Your task to perform on an android device: search for starred emails in the gmail app Image 0: 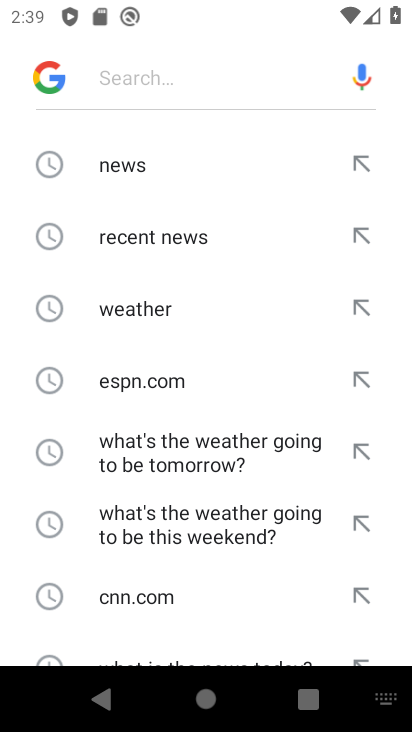
Step 0: press home button
Your task to perform on an android device: search for starred emails in the gmail app Image 1: 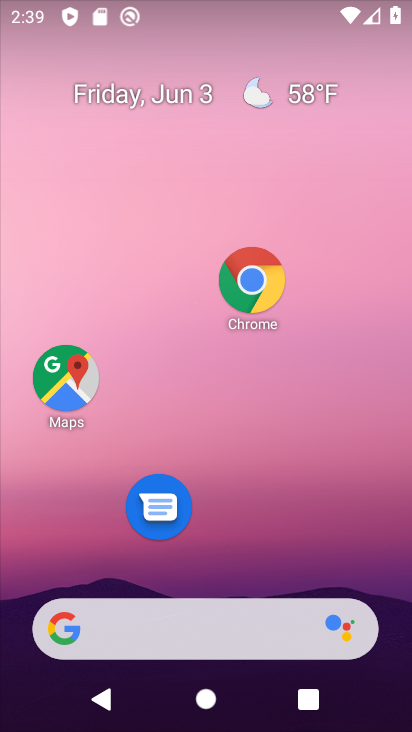
Step 1: drag from (280, 510) to (228, 76)
Your task to perform on an android device: search for starred emails in the gmail app Image 2: 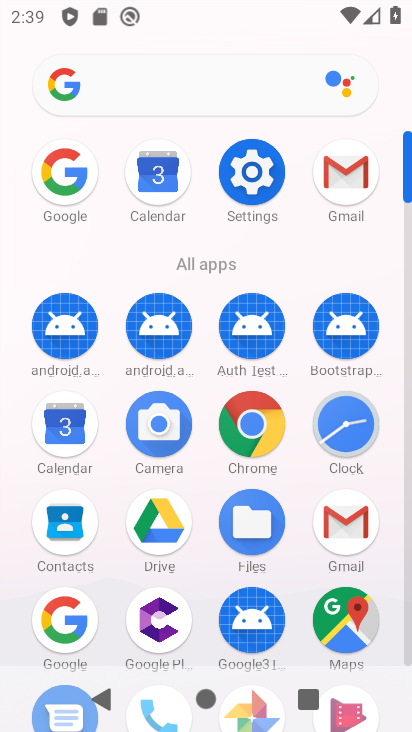
Step 2: click (347, 177)
Your task to perform on an android device: search for starred emails in the gmail app Image 3: 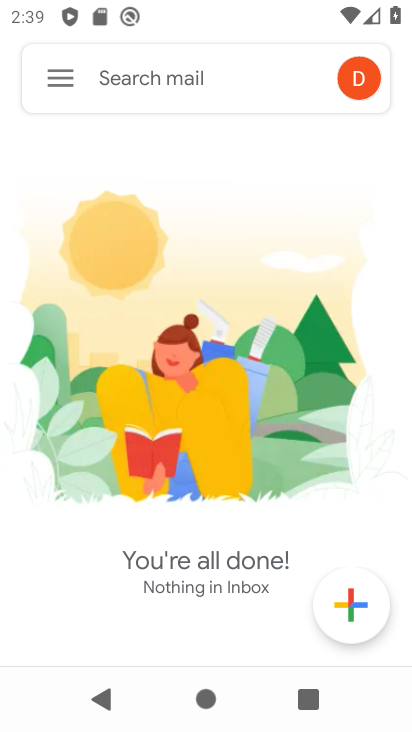
Step 3: click (58, 76)
Your task to perform on an android device: search for starred emails in the gmail app Image 4: 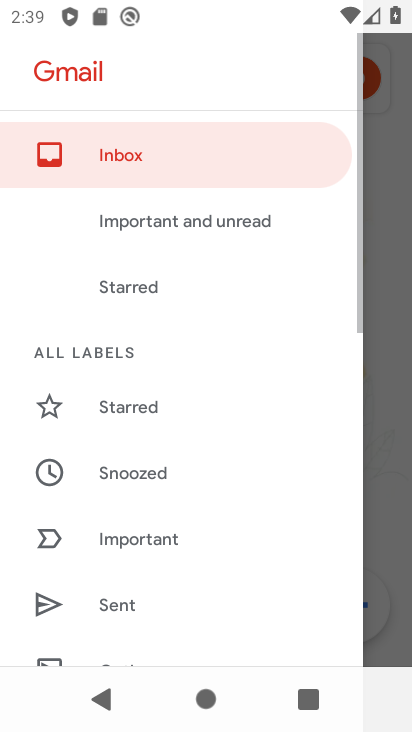
Step 4: click (165, 301)
Your task to perform on an android device: search for starred emails in the gmail app Image 5: 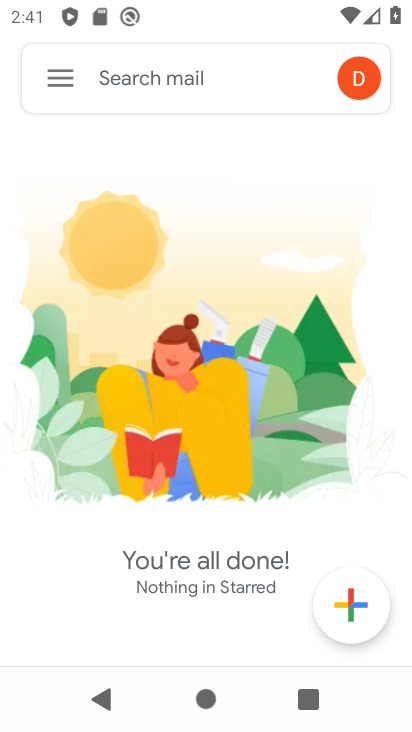
Step 5: task complete